Your task to perform on an android device: Open accessibility settings Image 0: 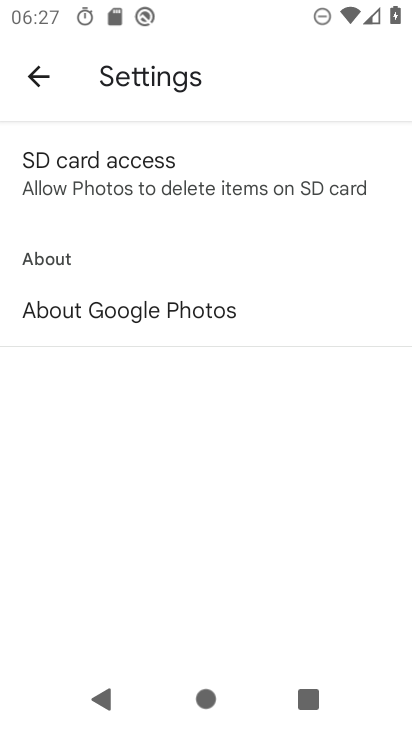
Step 0: drag from (224, 567) to (233, 485)
Your task to perform on an android device: Open accessibility settings Image 1: 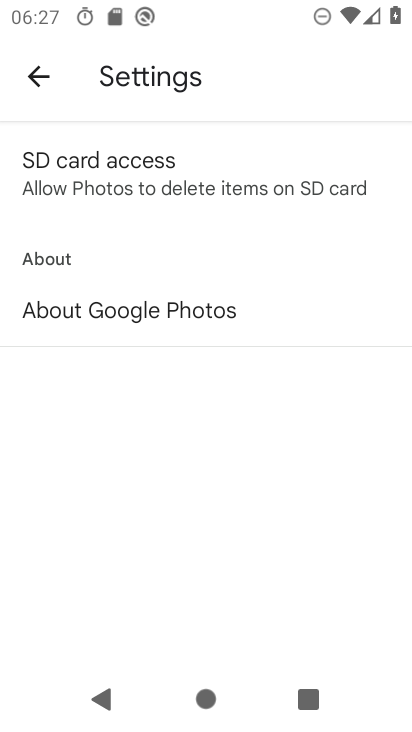
Step 1: press home button
Your task to perform on an android device: Open accessibility settings Image 2: 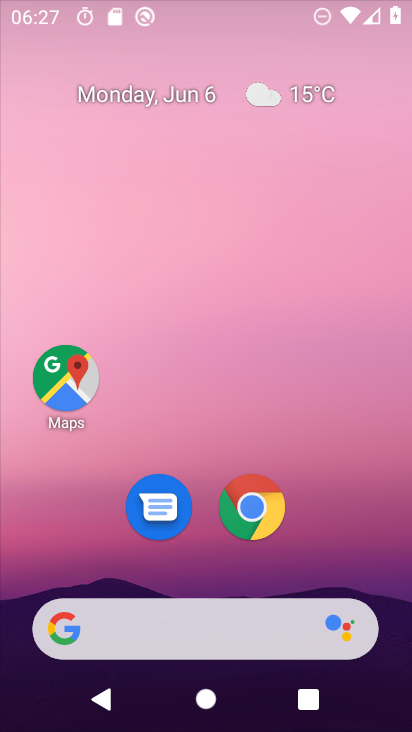
Step 2: drag from (190, 560) to (212, 149)
Your task to perform on an android device: Open accessibility settings Image 3: 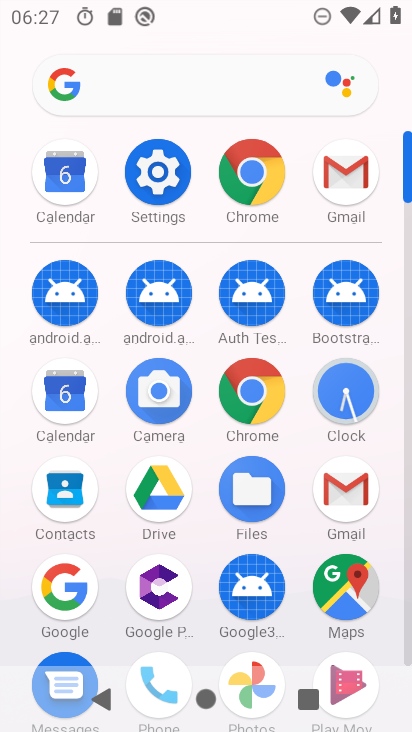
Step 3: click (175, 178)
Your task to perform on an android device: Open accessibility settings Image 4: 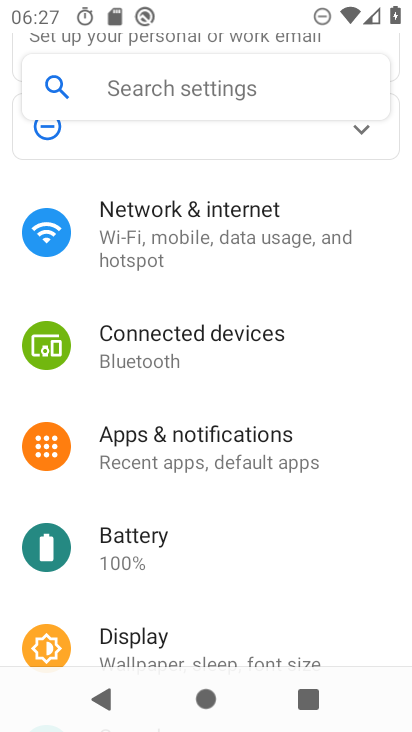
Step 4: drag from (209, 587) to (257, 228)
Your task to perform on an android device: Open accessibility settings Image 5: 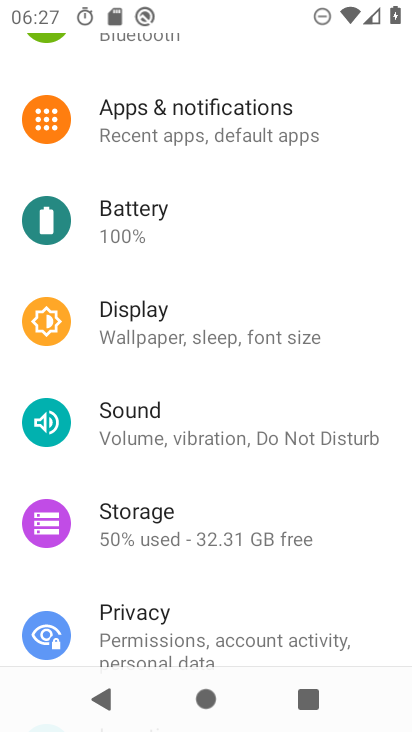
Step 5: drag from (192, 600) to (196, 220)
Your task to perform on an android device: Open accessibility settings Image 6: 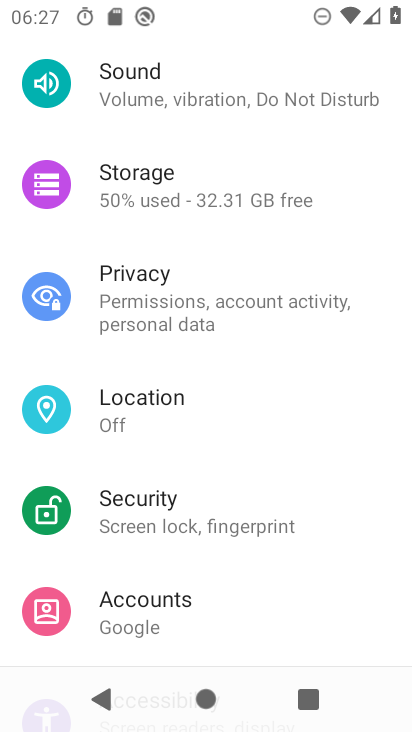
Step 6: drag from (149, 602) to (169, 255)
Your task to perform on an android device: Open accessibility settings Image 7: 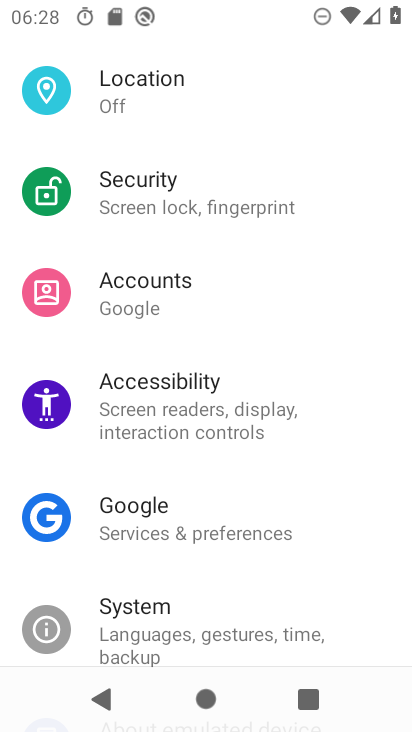
Step 7: click (149, 414)
Your task to perform on an android device: Open accessibility settings Image 8: 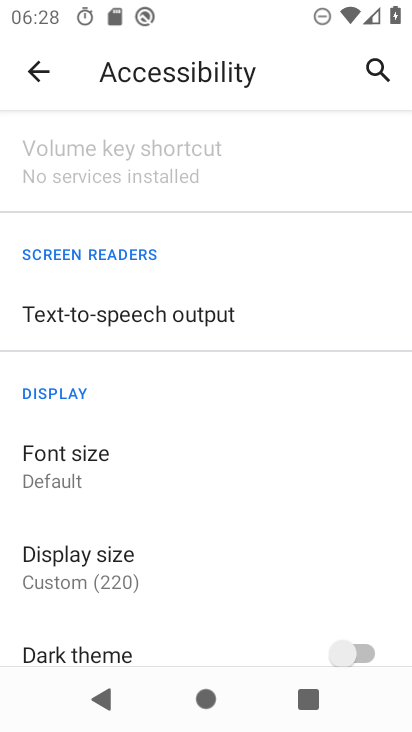
Step 8: task complete